Your task to perform on an android device: Search for Italian restaurants on Maps Image 0: 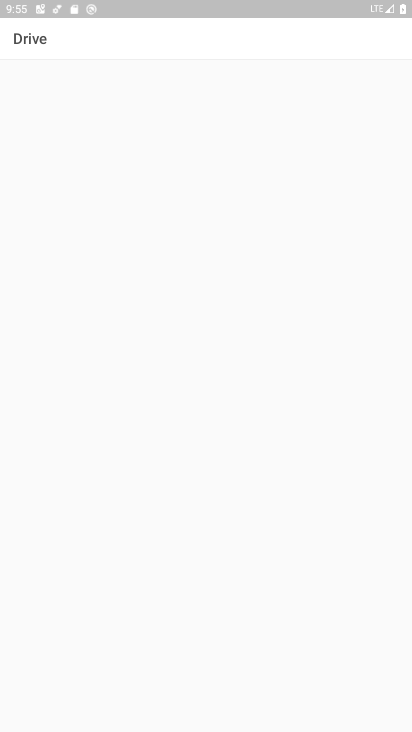
Step 0: press home button
Your task to perform on an android device: Search for Italian restaurants on Maps Image 1: 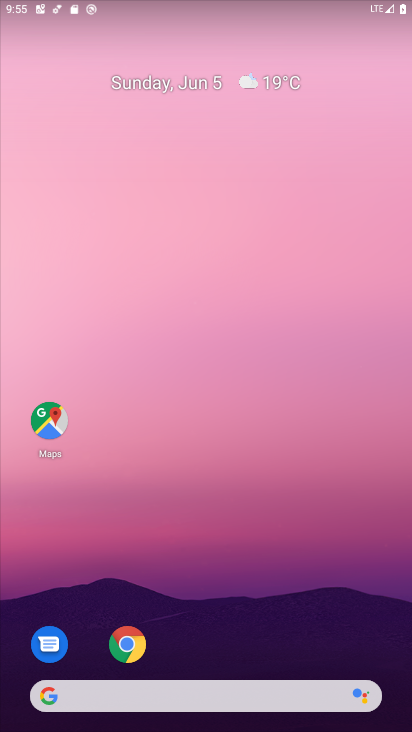
Step 1: drag from (315, 604) to (260, 10)
Your task to perform on an android device: Search for Italian restaurants on Maps Image 2: 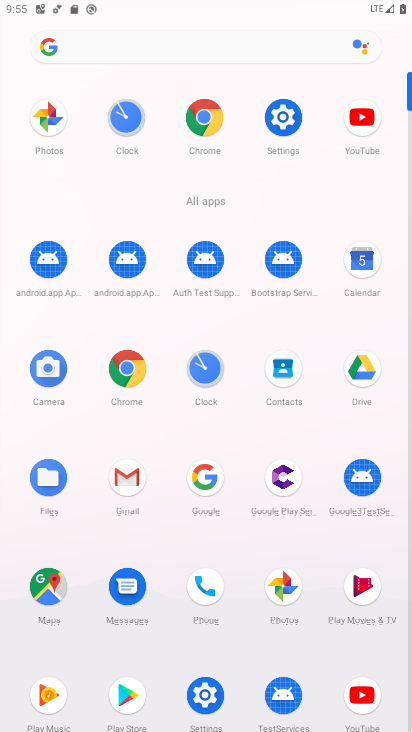
Step 2: click (239, 632)
Your task to perform on an android device: Search for Italian restaurants on Maps Image 3: 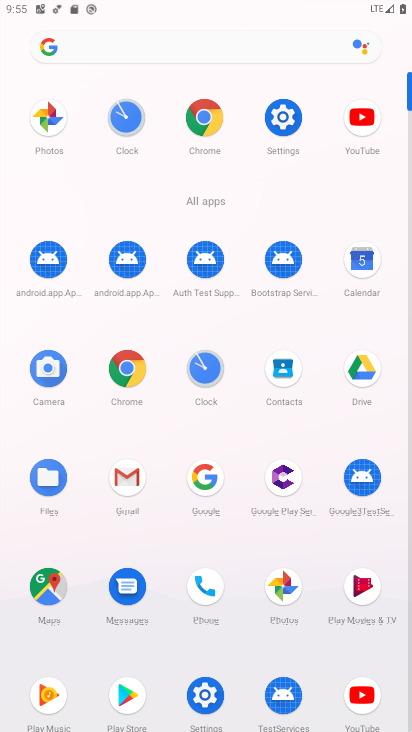
Step 3: drag from (240, 629) to (250, 324)
Your task to perform on an android device: Search for Italian restaurants on Maps Image 4: 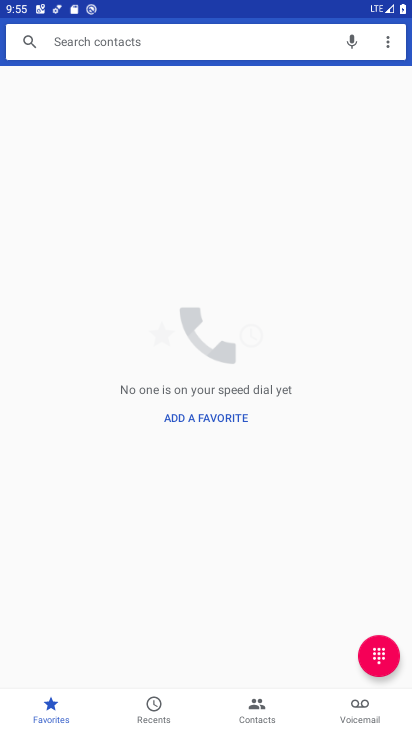
Step 4: press back button
Your task to perform on an android device: Search for Italian restaurants on Maps Image 5: 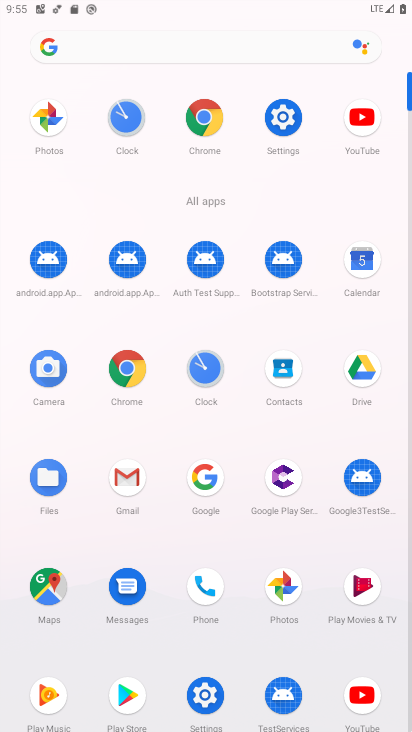
Step 5: click (61, 587)
Your task to perform on an android device: Search for Italian restaurants on Maps Image 6: 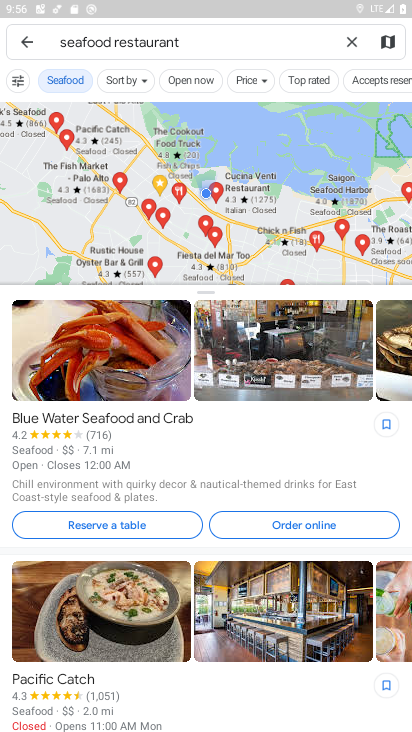
Step 6: press home button
Your task to perform on an android device: Search for Italian restaurants on Maps Image 7: 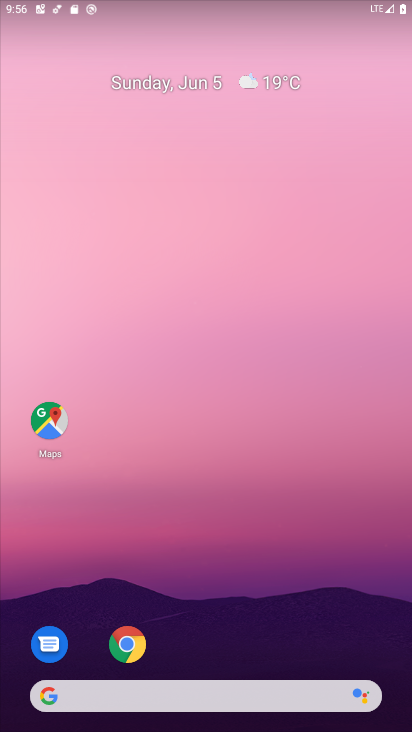
Step 7: click (49, 415)
Your task to perform on an android device: Search for Italian restaurants on Maps Image 8: 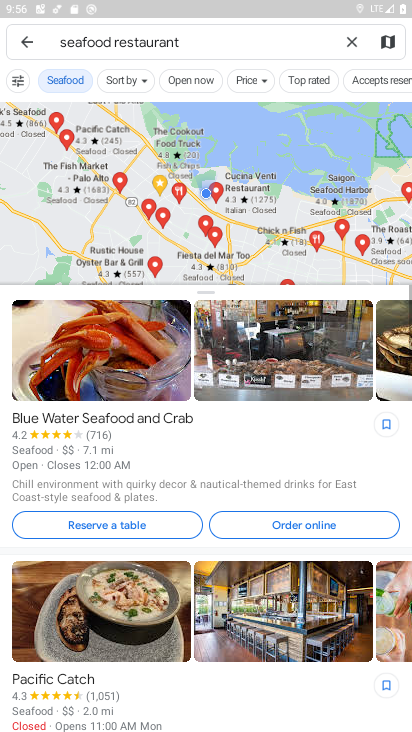
Step 8: click (349, 40)
Your task to perform on an android device: Search for Italian restaurants on Maps Image 9: 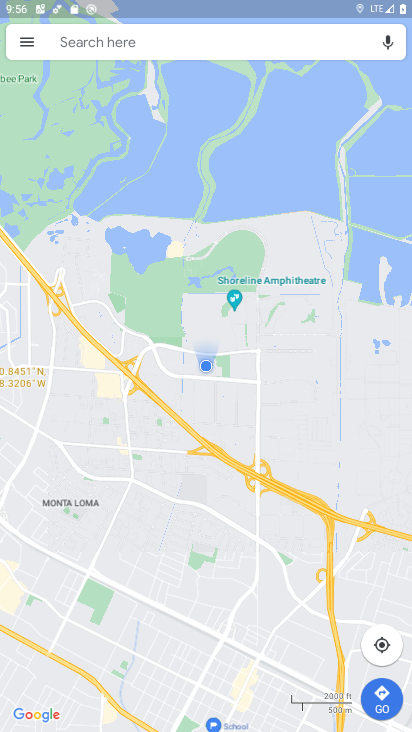
Step 9: click (134, 47)
Your task to perform on an android device: Search for Italian restaurants on Maps Image 10: 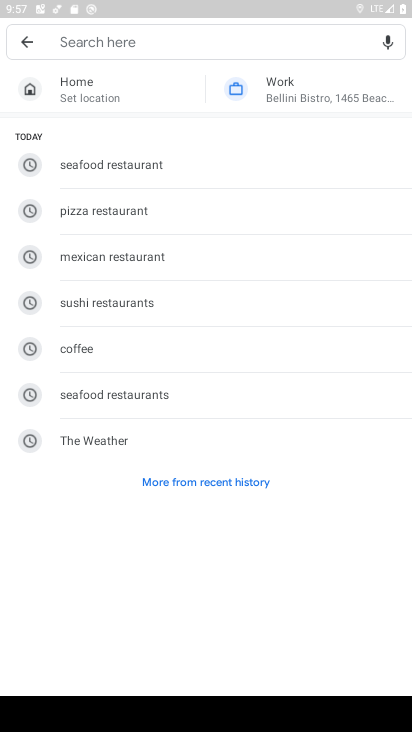
Step 10: type "Italian restaurant"
Your task to perform on an android device: Search for Italian restaurants on Maps Image 11: 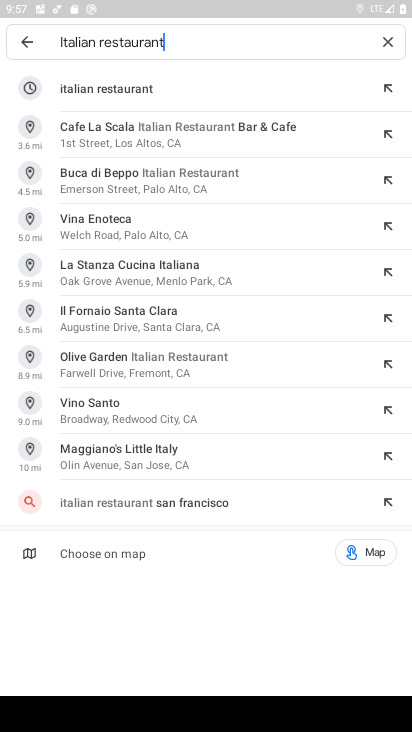
Step 11: click (284, 83)
Your task to perform on an android device: Search for Italian restaurants on Maps Image 12: 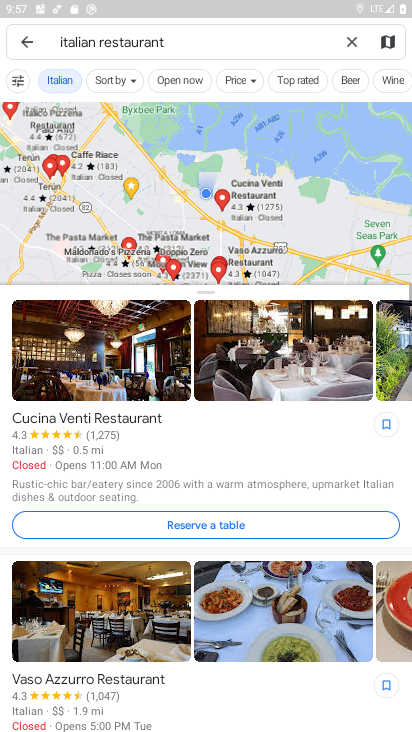
Step 12: task complete